Your task to perform on an android device: Is it going to rain this weekend? Image 0: 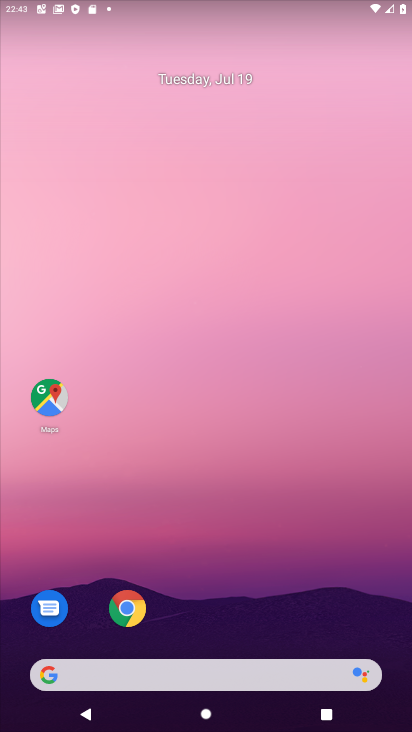
Step 0: drag from (336, 578) to (270, 113)
Your task to perform on an android device: Is it going to rain this weekend? Image 1: 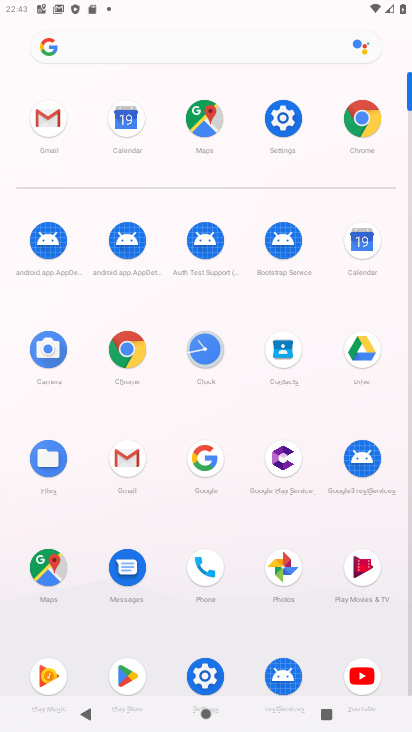
Step 1: click (364, 114)
Your task to perform on an android device: Is it going to rain this weekend? Image 2: 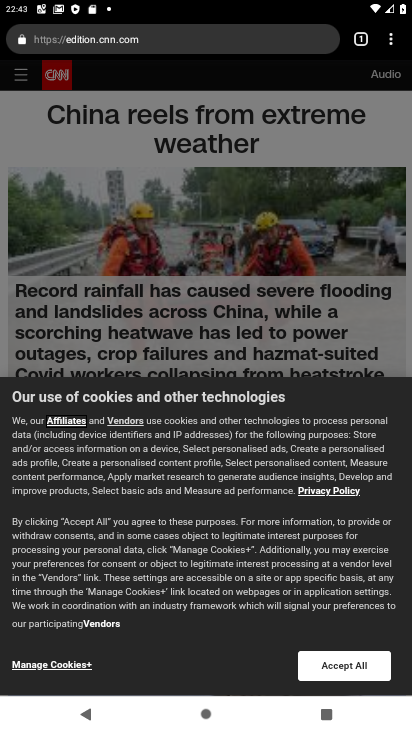
Step 2: click (240, 45)
Your task to perform on an android device: Is it going to rain this weekend? Image 3: 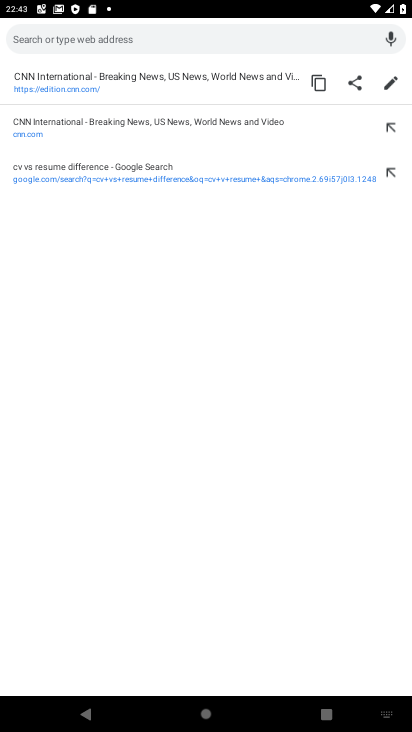
Step 3: type "weather"
Your task to perform on an android device: Is it going to rain this weekend? Image 4: 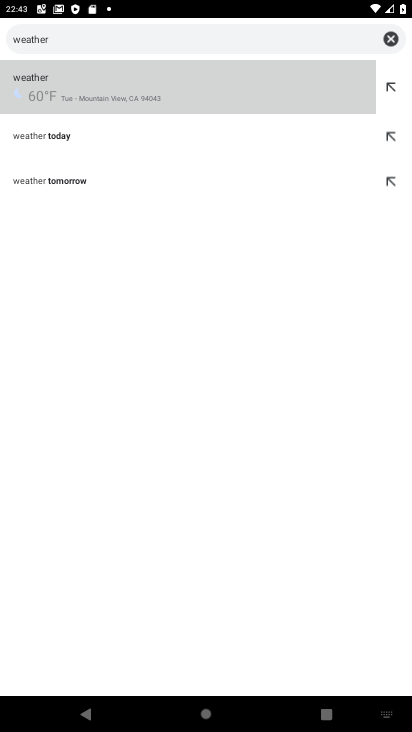
Step 4: click (36, 82)
Your task to perform on an android device: Is it going to rain this weekend? Image 5: 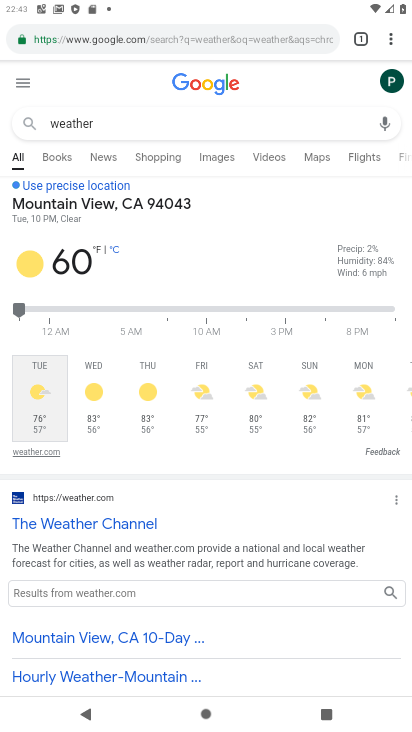
Step 5: click (257, 391)
Your task to perform on an android device: Is it going to rain this weekend? Image 6: 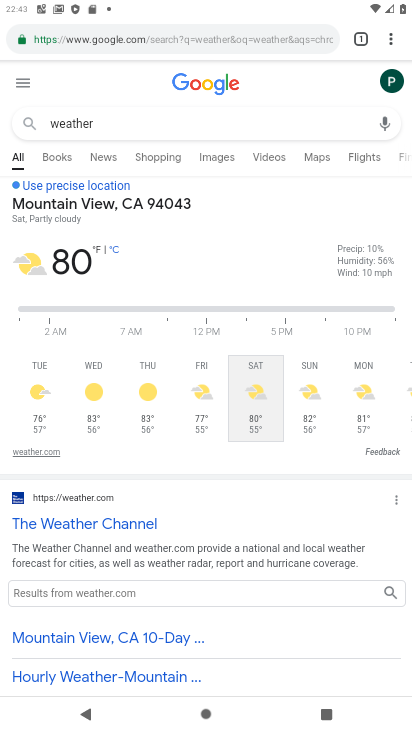
Step 6: task complete